Your task to perform on an android device: turn pop-ups off in chrome Image 0: 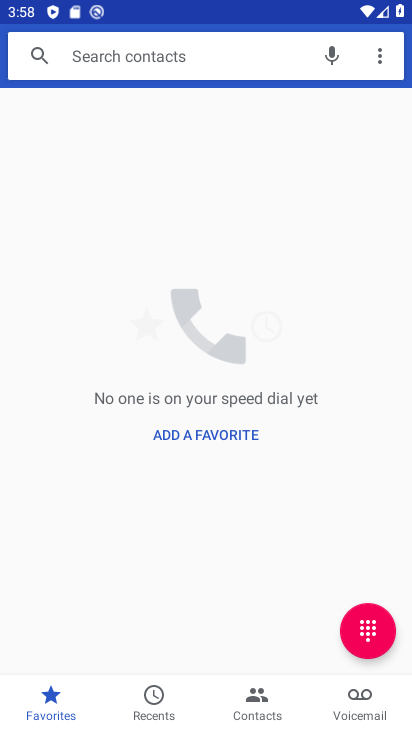
Step 0: press home button
Your task to perform on an android device: turn pop-ups off in chrome Image 1: 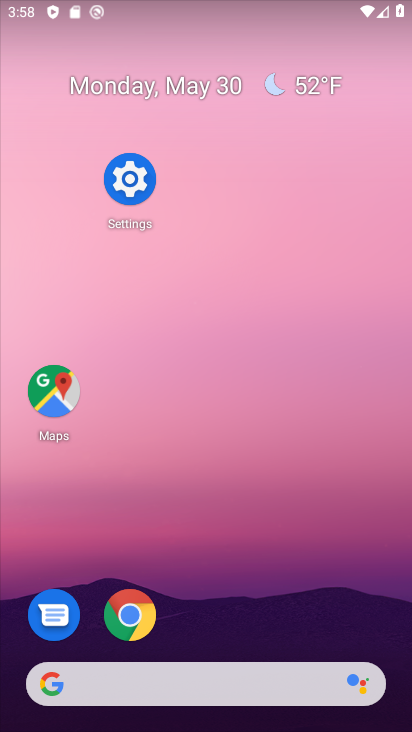
Step 1: click (142, 622)
Your task to perform on an android device: turn pop-ups off in chrome Image 2: 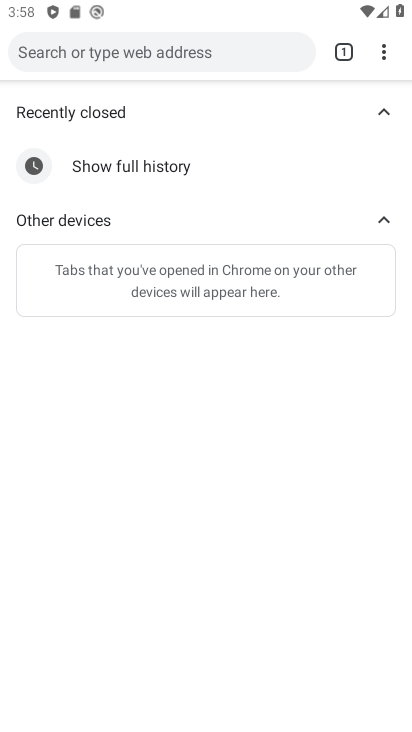
Step 2: click (382, 54)
Your task to perform on an android device: turn pop-ups off in chrome Image 3: 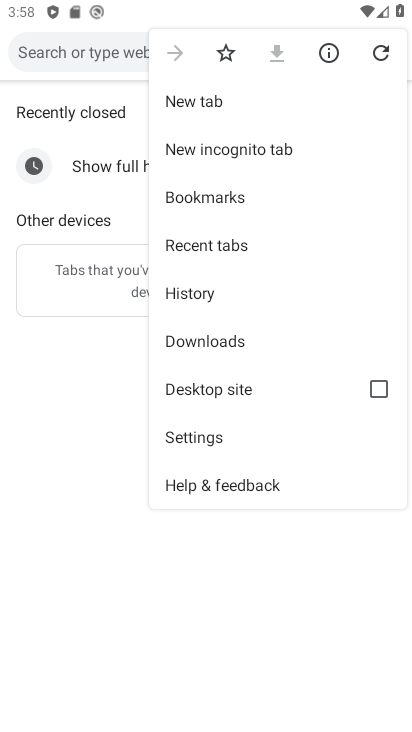
Step 3: click (182, 441)
Your task to perform on an android device: turn pop-ups off in chrome Image 4: 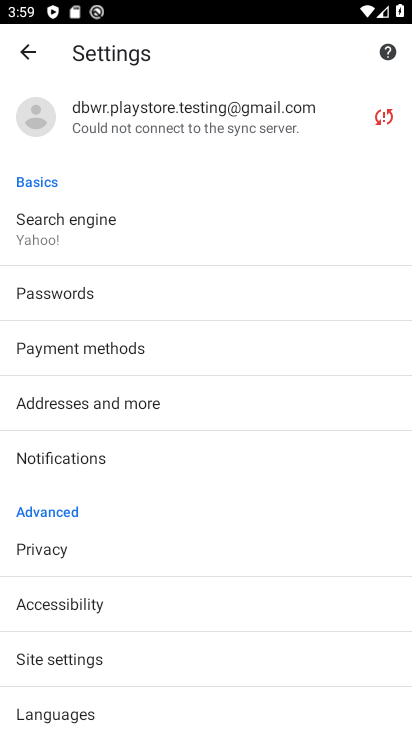
Step 4: drag from (187, 651) to (182, 236)
Your task to perform on an android device: turn pop-ups off in chrome Image 5: 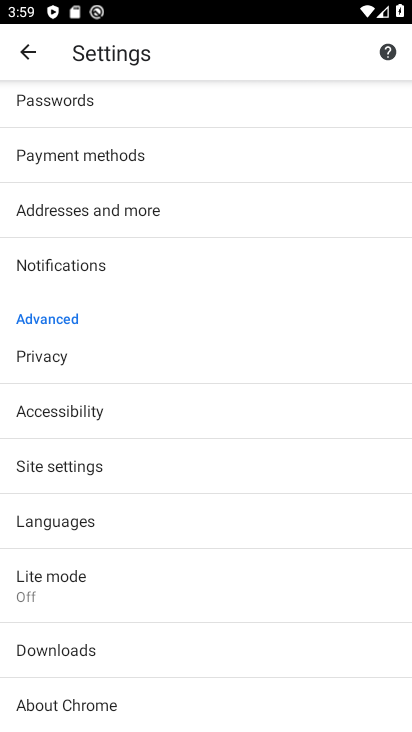
Step 5: click (104, 478)
Your task to perform on an android device: turn pop-ups off in chrome Image 6: 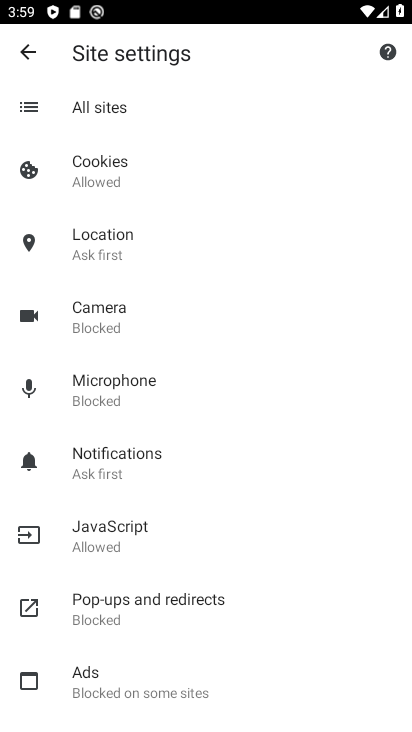
Step 6: click (148, 591)
Your task to perform on an android device: turn pop-ups off in chrome Image 7: 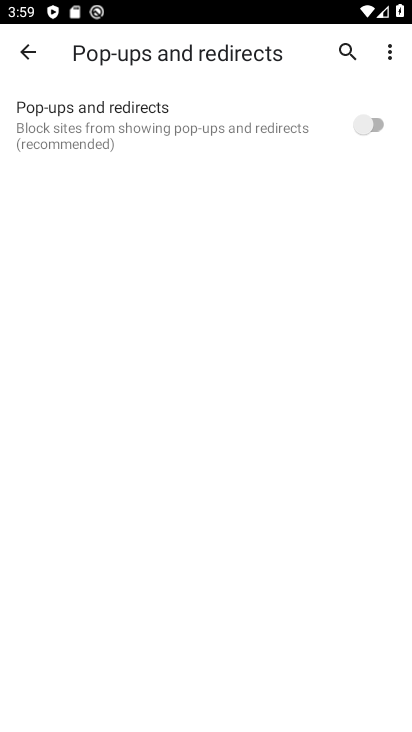
Step 7: task complete